Your task to perform on an android device: check the backup settings in the google photos Image 0: 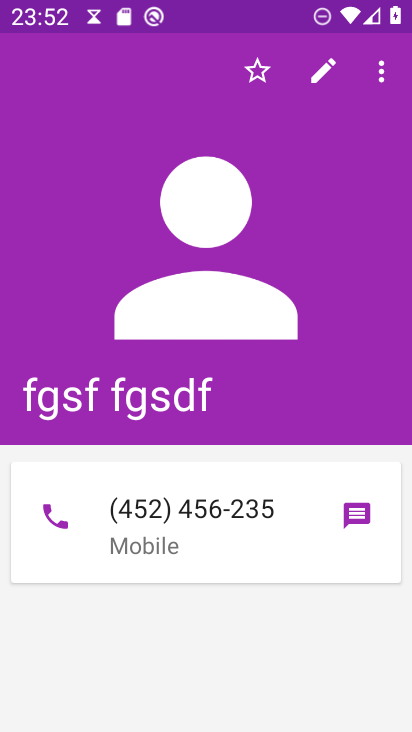
Step 0: press home button
Your task to perform on an android device: check the backup settings in the google photos Image 1: 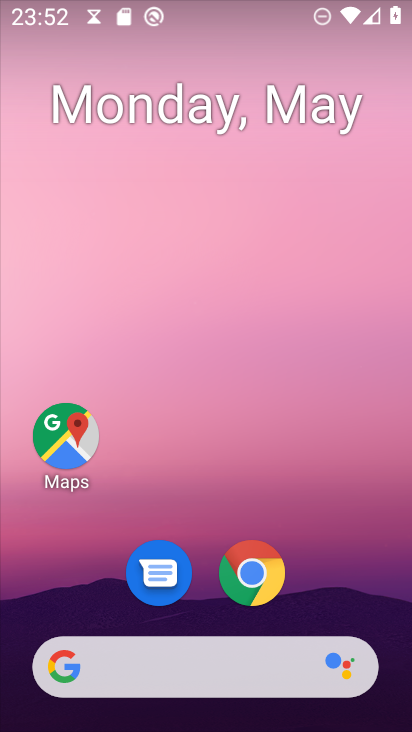
Step 1: drag from (320, 569) to (189, 65)
Your task to perform on an android device: check the backup settings in the google photos Image 2: 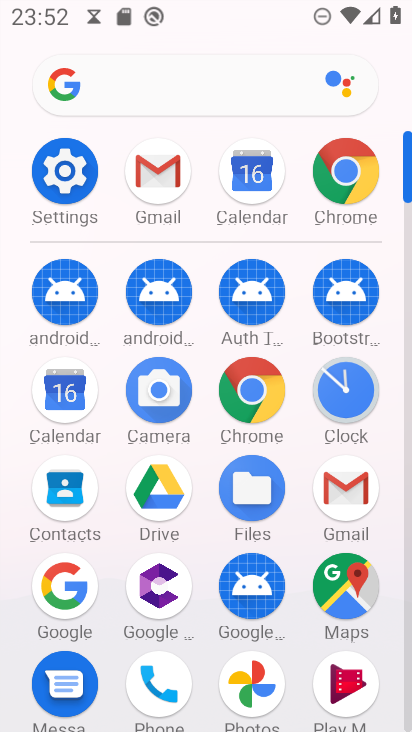
Step 2: click (253, 676)
Your task to perform on an android device: check the backup settings in the google photos Image 3: 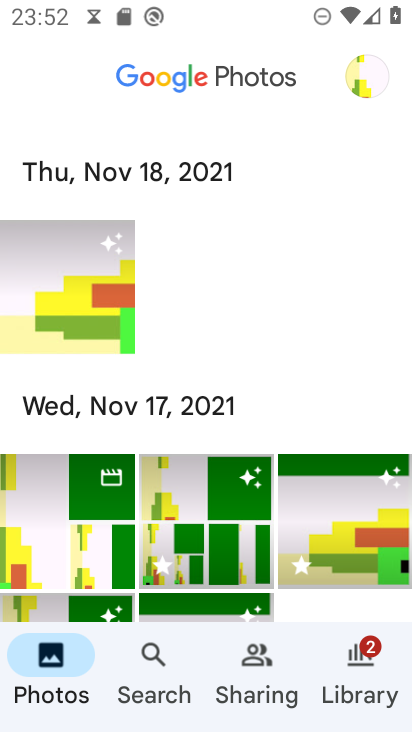
Step 3: click (367, 77)
Your task to perform on an android device: check the backup settings in the google photos Image 4: 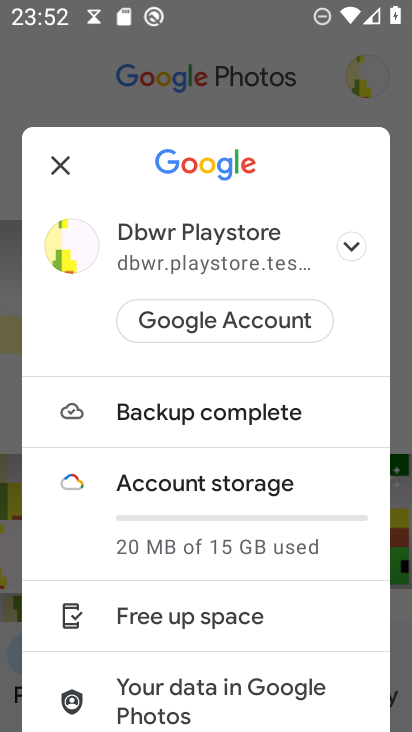
Step 4: drag from (208, 622) to (158, 215)
Your task to perform on an android device: check the backup settings in the google photos Image 5: 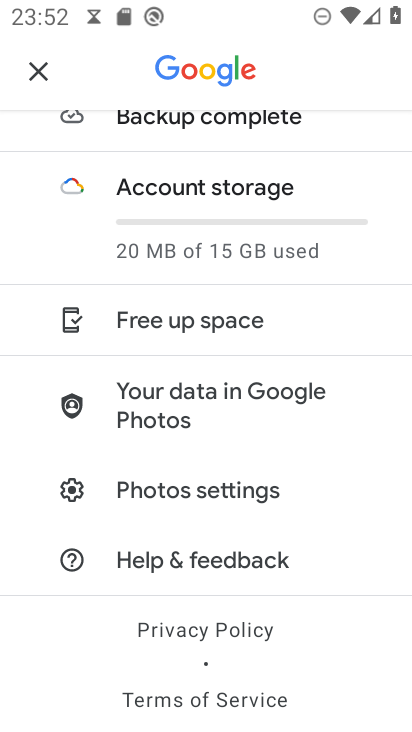
Step 5: click (194, 486)
Your task to perform on an android device: check the backup settings in the google photos Image 6: 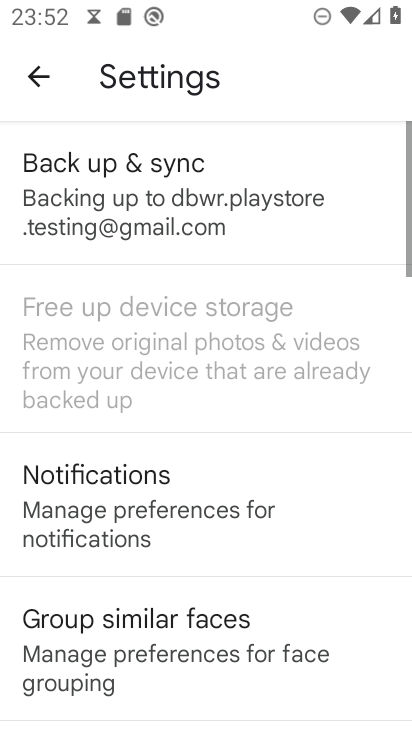
Step 6: click (105, 187)
Your task to perform on an android device: check the backup settings in the google photos Image 7: 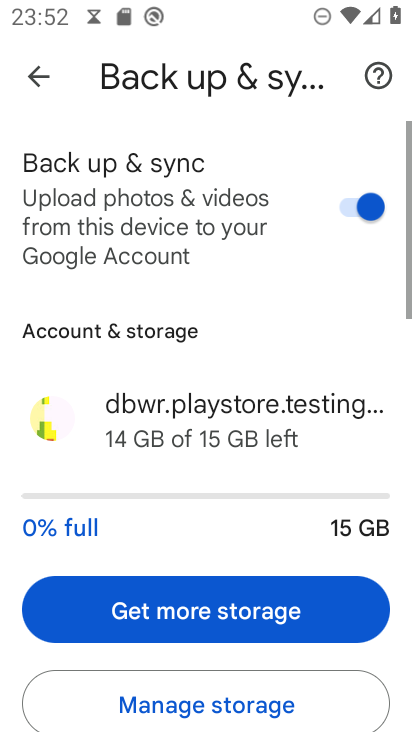
Step 7: task complete